Your task to perform on an android device: see tabs open on other devices in the chrome app Image 0: 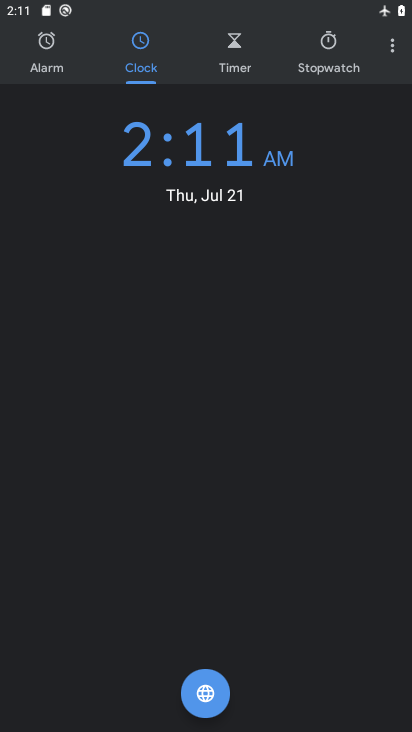
Step 0: press back button
Your task to perform on an android device: see tabs open on other devices in the chrome app Image 1: 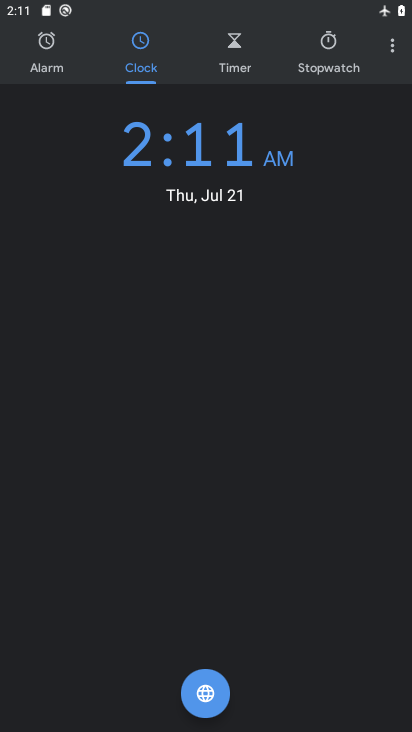
Step 1: press back button
Your task to perform on an android device: see tabs open on other devices in the chrome app Image 2: 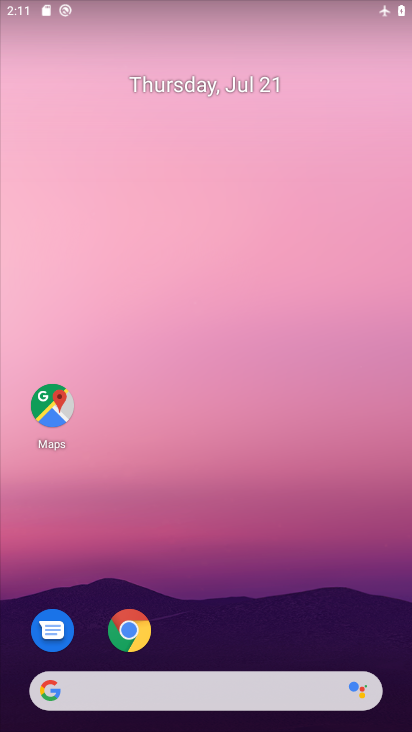
Step 2: drag from (253, 553) to (207, 156)
Your task to perform on an android device: see tabs open on other devices in the chrome app Image 3: 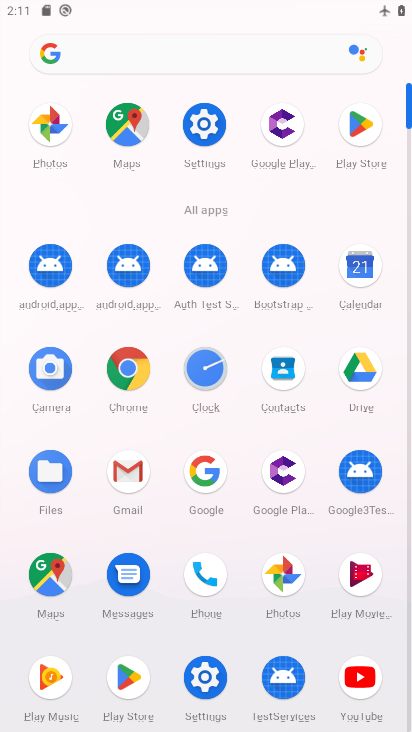
Step 3: click (131, 385)
Your task to perform on an android device: see tabs open on other devices in the chrome app Image 4: 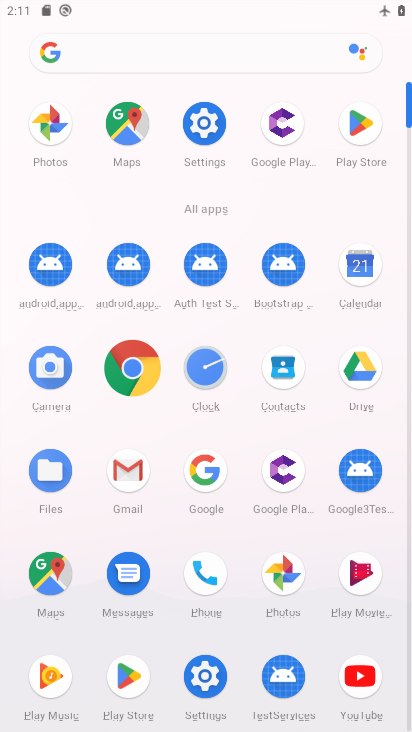
Step 4: click (119, 378)
Your task to perform on an android device: see tabs open on other devices in the chrome app Image 5: 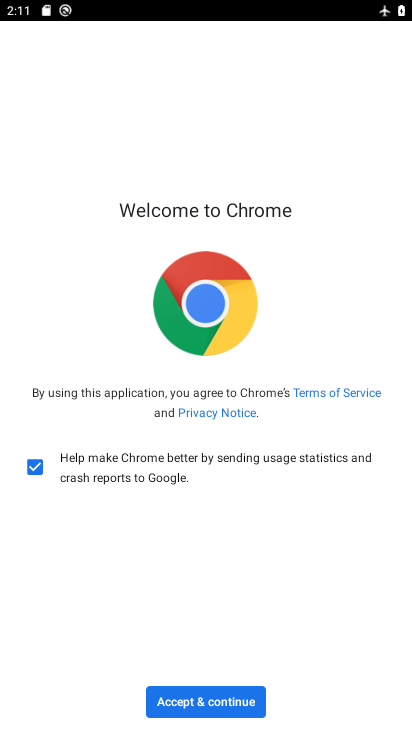
Step 5: click (214, 695)
Your task to perform on an android device: see tabs open on other devices in the chrome app Image 6: 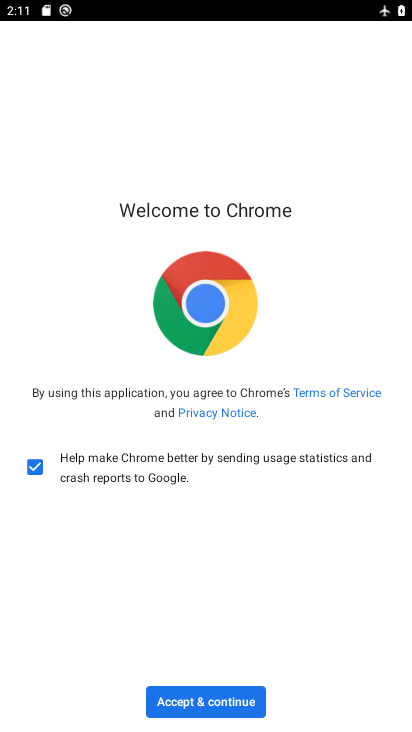
Step 6: click (214, 696)
Your task to perform on an android device: see tabs open on other devices in the chrome app Image 7: 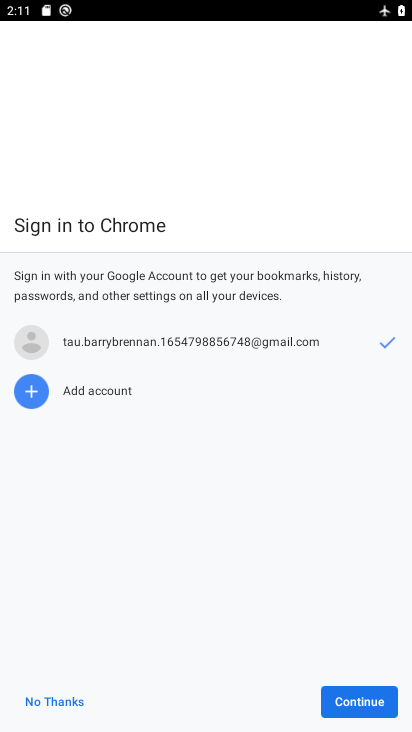
Step 7: click (214, 696)
Your task to perform on an android device: see tabs open on other devices in the chrome app Image 8: 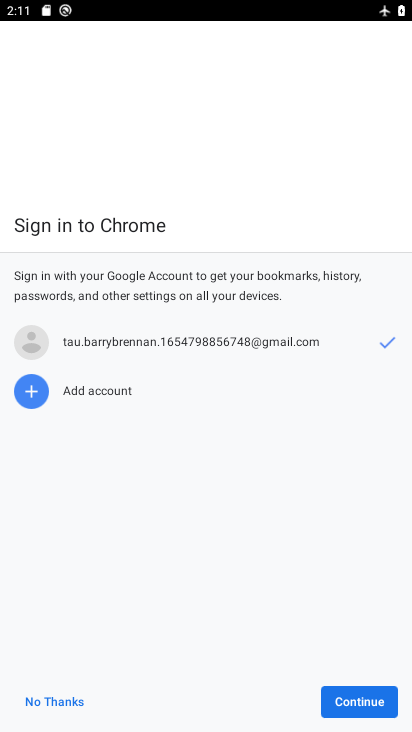
Step 8: click (214, 696)
Your task to perform on an android device: see tabs open on other devices in the chrome app Image 9: 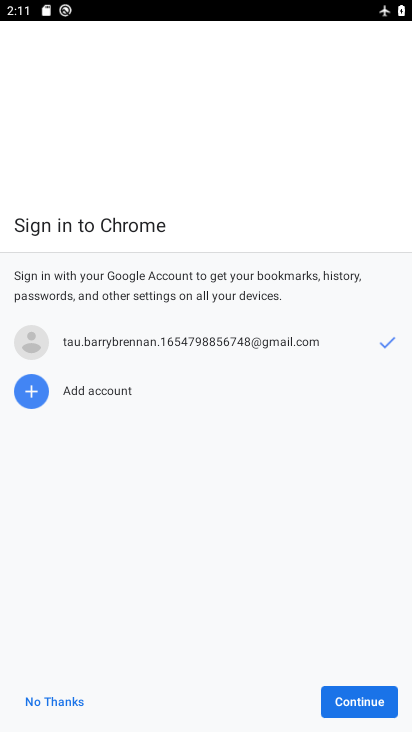
Step 9: click (71, 702)
Your task to perform on an android device: see tabs open on other devices in the chrome app Image 10: 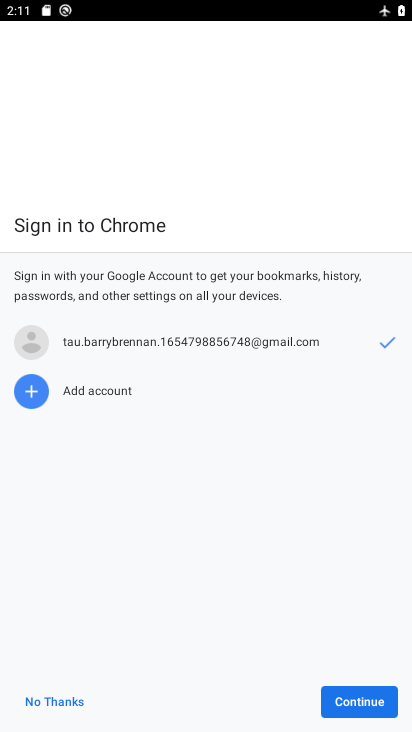
Step 10: click (63, 701)
Your task to perform on an android device: see tabs open on other devices in the chrome app Image 11: 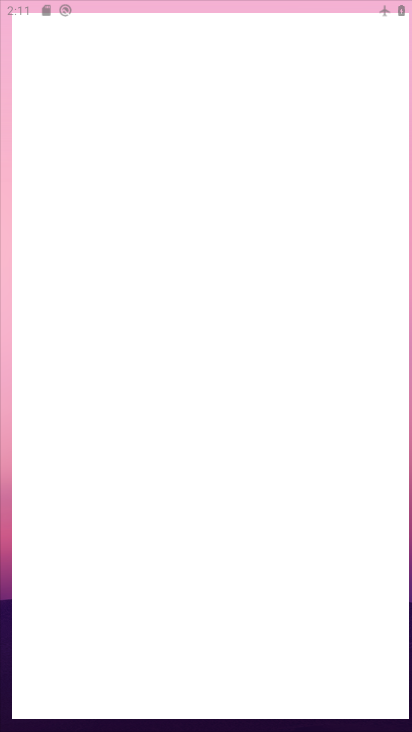
Step 11: click (65, 702)
Your task to perform on an android device: see tabs open on other devices in the chrome app Image 12: 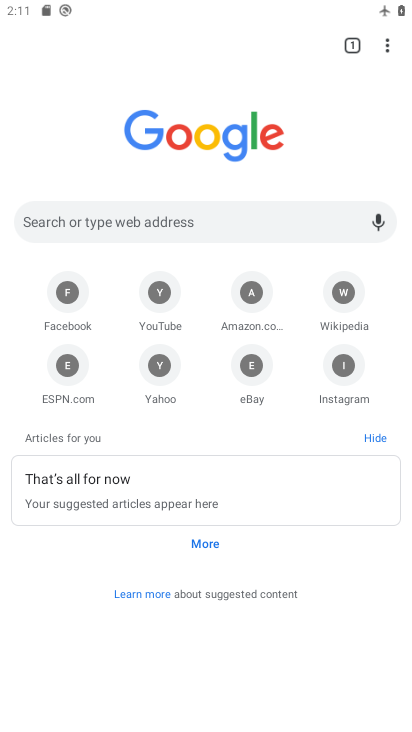
Step 12: click (249, 296)
Your task to perform on an android device: see tabs open on other devices in the chrome app Image 13: 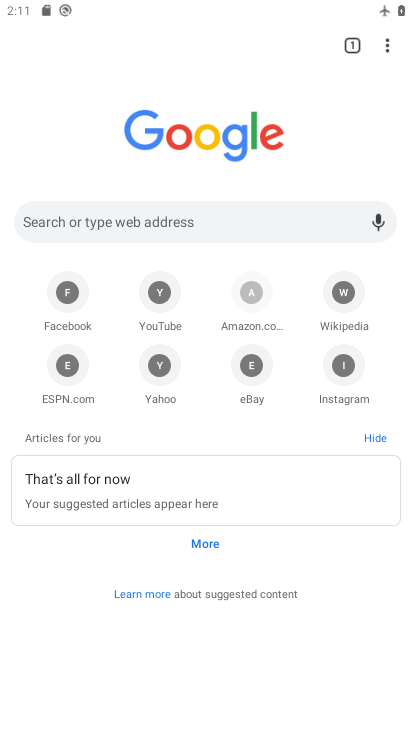
Step 13: click (253, 304)
Your task to perform on an android device: see tabs open on other devices in the chrome app Image 14: 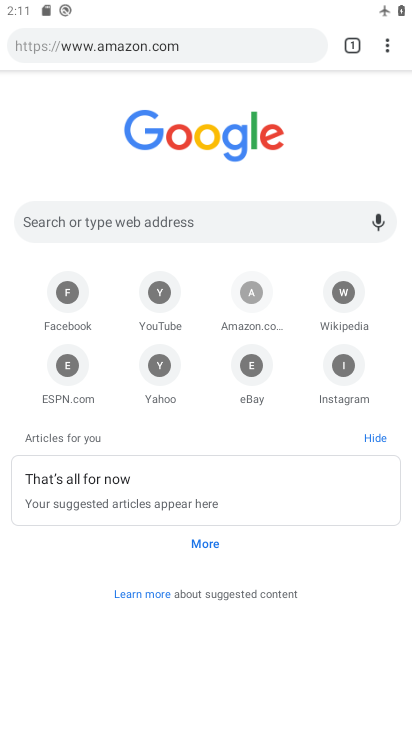
Step 14: click (256, 304)
Your task to perform on an android device: see tabs open on other devices in the chrome app Image 15: 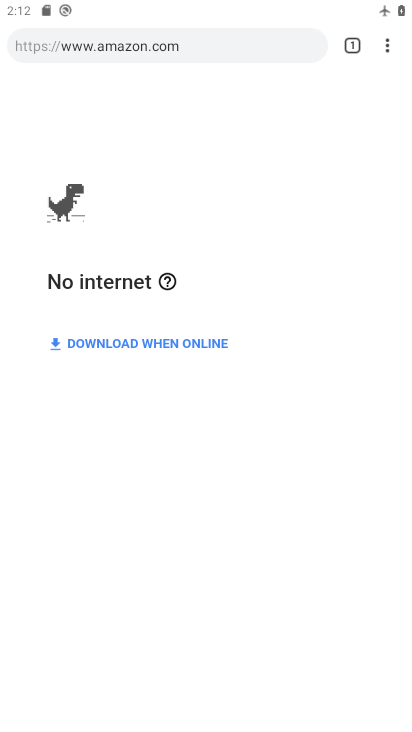
Step 15: unknown action
Your task to perform on an android device: see tabs open on other devices in the chrome app Image 16: 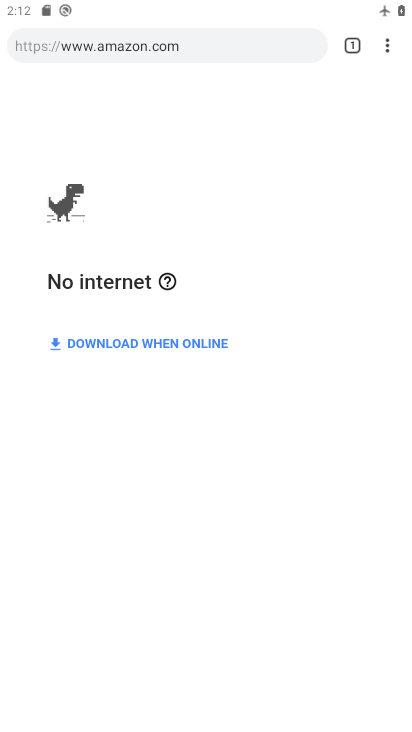
Step 16: task complete